Your task to perform on an android device: Check the weather Image 0: 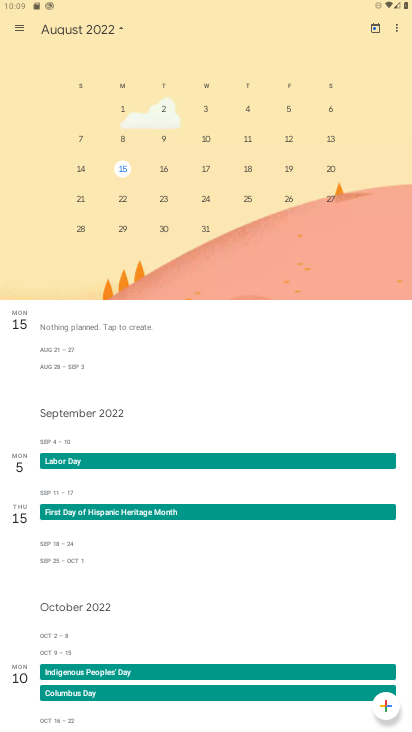
Step 0: press home button
Your task to perform on an android device: Check the weather Image 1: 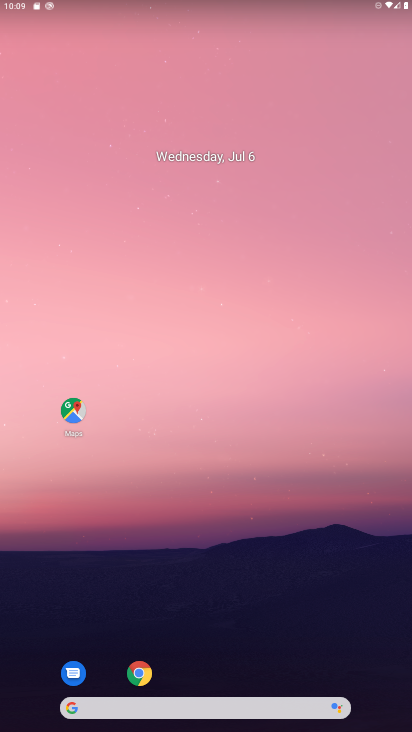
Step 1: click (159, 712)
Your task to perform on an android device: Check the weather Image 2: 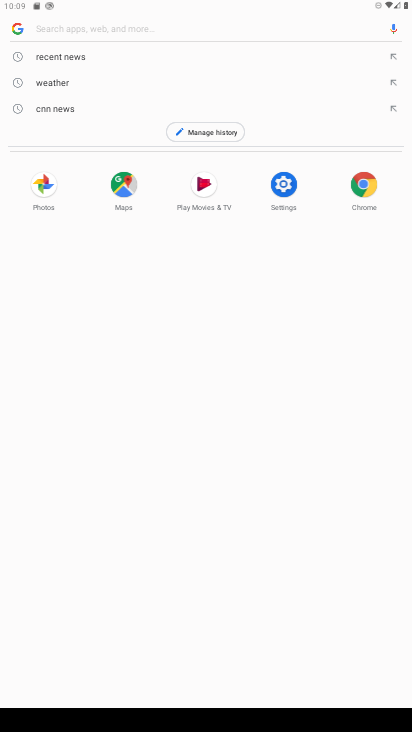
Step 2: click (76, 85)
Your task to perform on an android device: Check the weather Image 3: 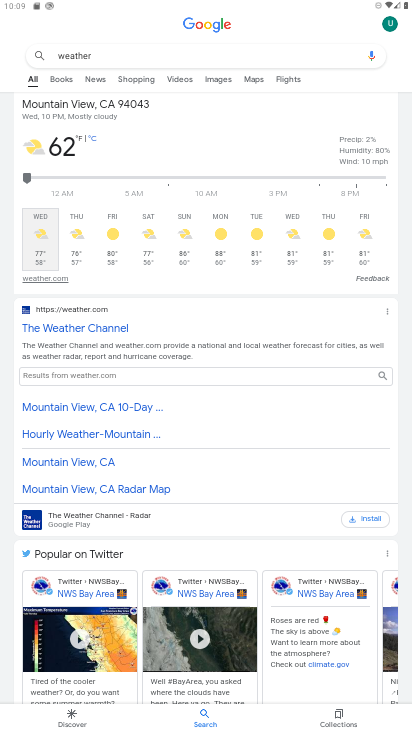
Step 3: task complete